Your task to perform on an android device: Open Chrome and go to settings Image 0: 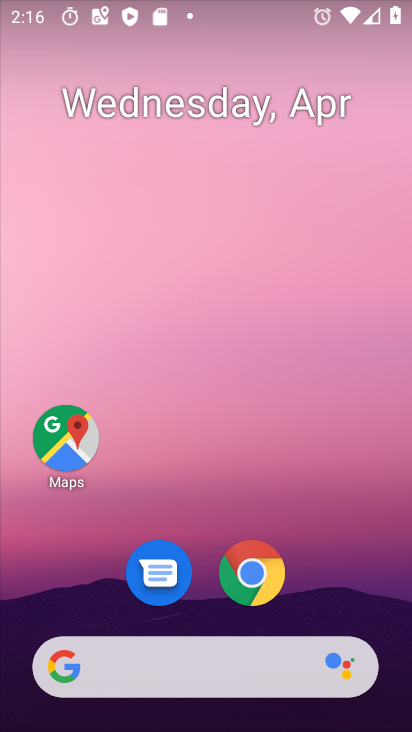
Step 0: drag from (343, 533) to (322, 229)
Your task to perform on an android device: Open Chrome and go to settings Image 1: 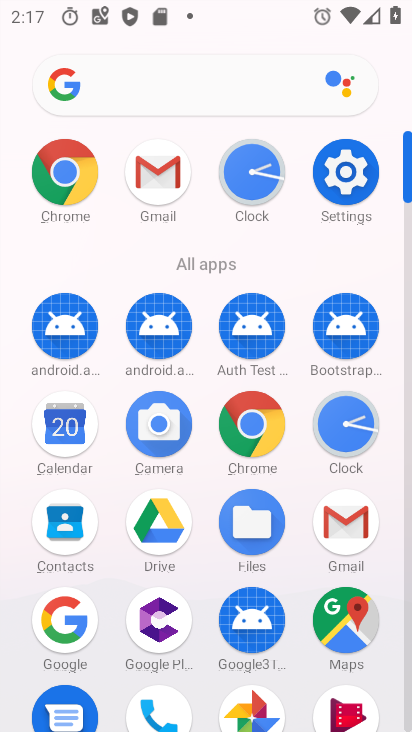
Step 1: click (252, 438)
Your task to perform on an android device: Open Chrome and go to settings Image 2: 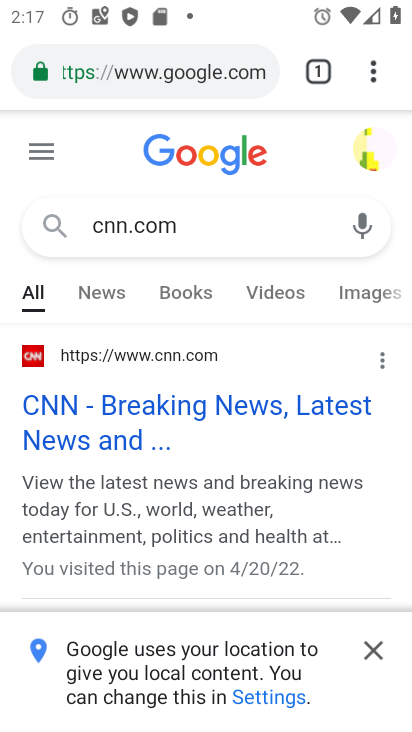
Step 2: click (373, 70)
Your task to perform on an android device: Open Chrome and go to settings Image 3: 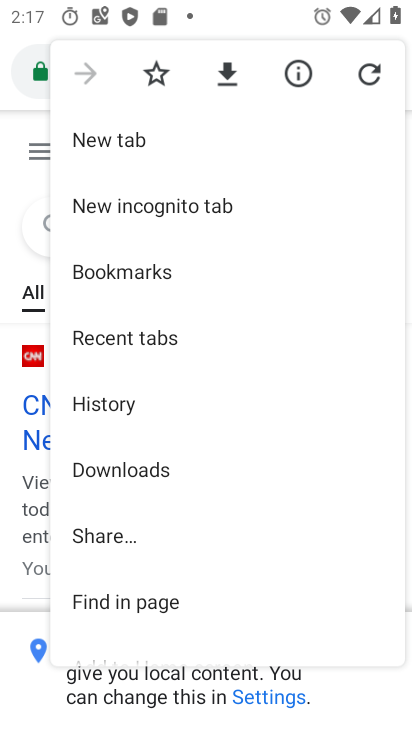
Step 3: drag from (268, 575) to (296, 357)
Your task to perform on an android device: Open Chrome and go to settings Image 4: 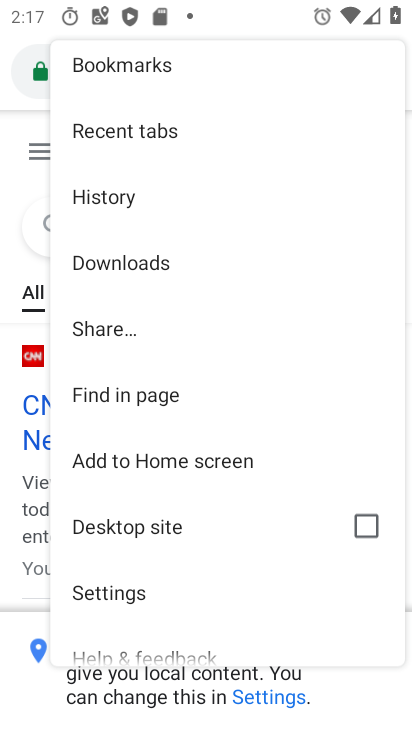
Step 4: click (127, 601)
Your task to perform on an android device: Open Chrome and go to settings Image 5: 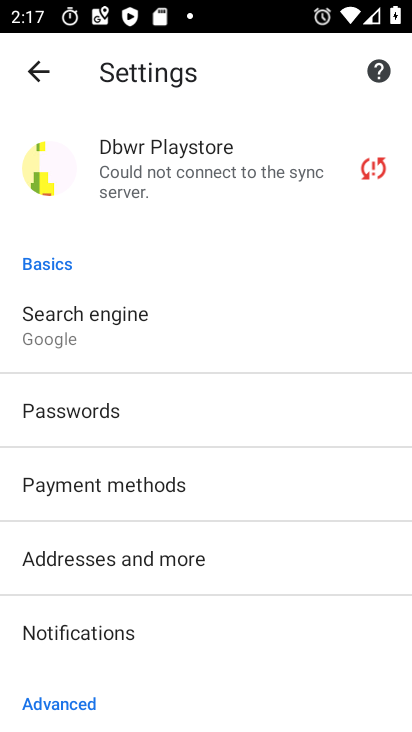
Step 5: task complete